Your task to perform on an android device: Add asus zenbook to the cart on costco, then select checkout. Image 0: 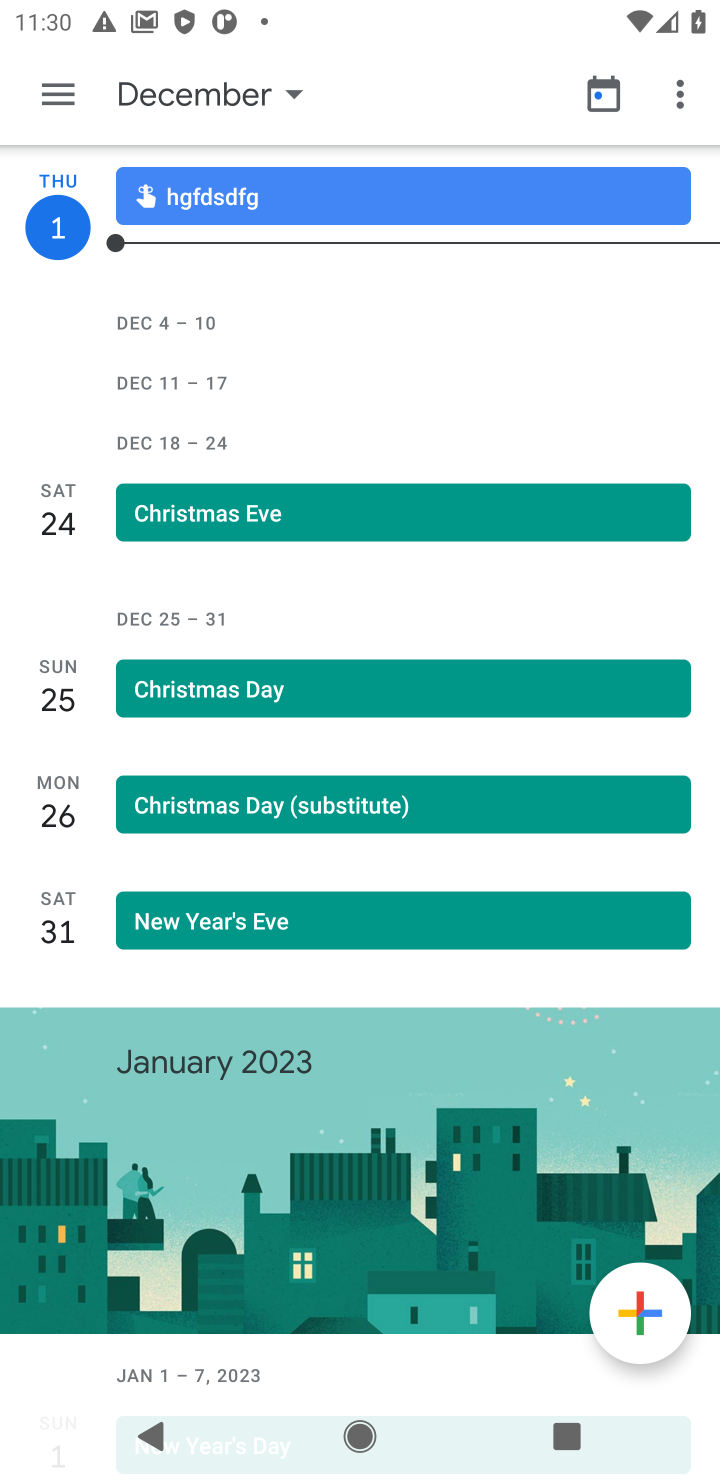
Step 0: press home button
Your task to perform on an android device: Add asus zenbook to the cart on costco, then select checkout. Image 1: 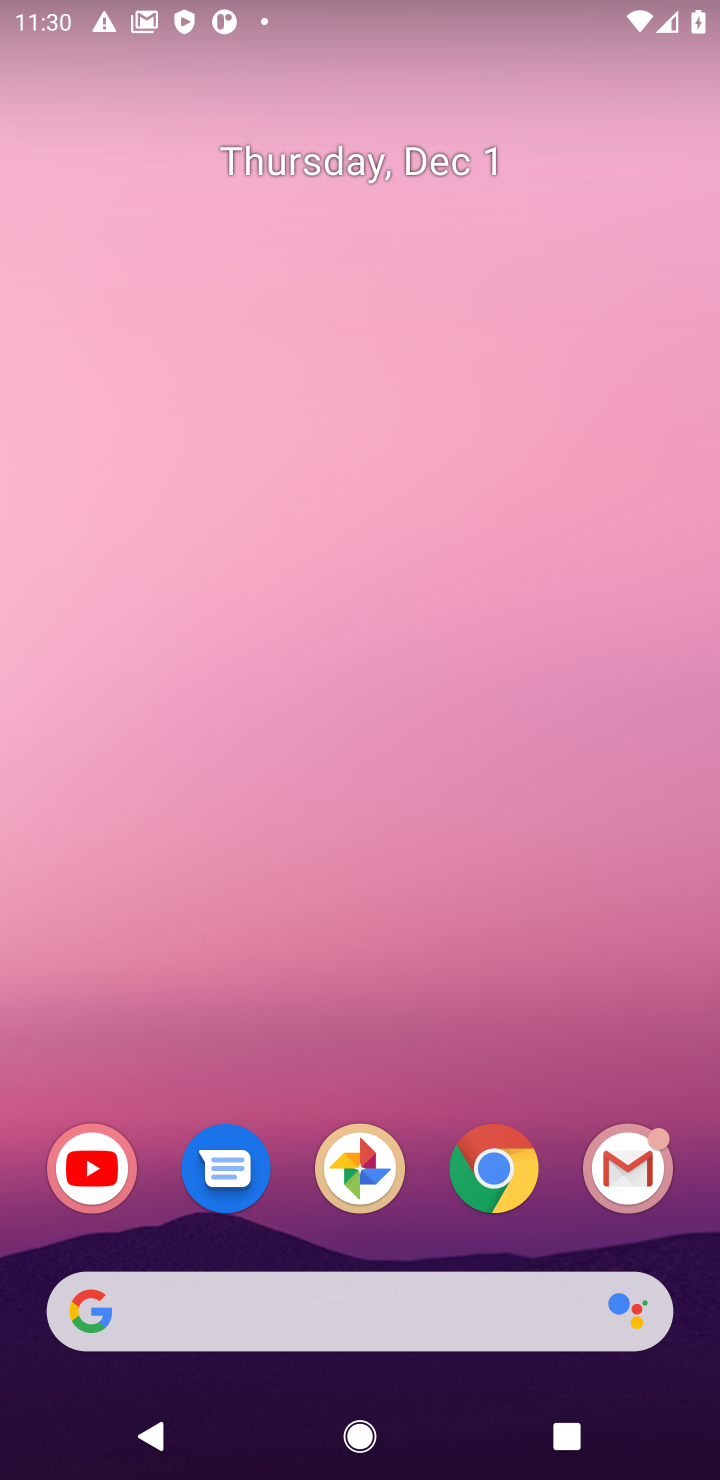
Step 1: click (491, 1190)
Your task to perform on an android device: Add asus zenbook to the cart on costco, then select checkout. Image 2: 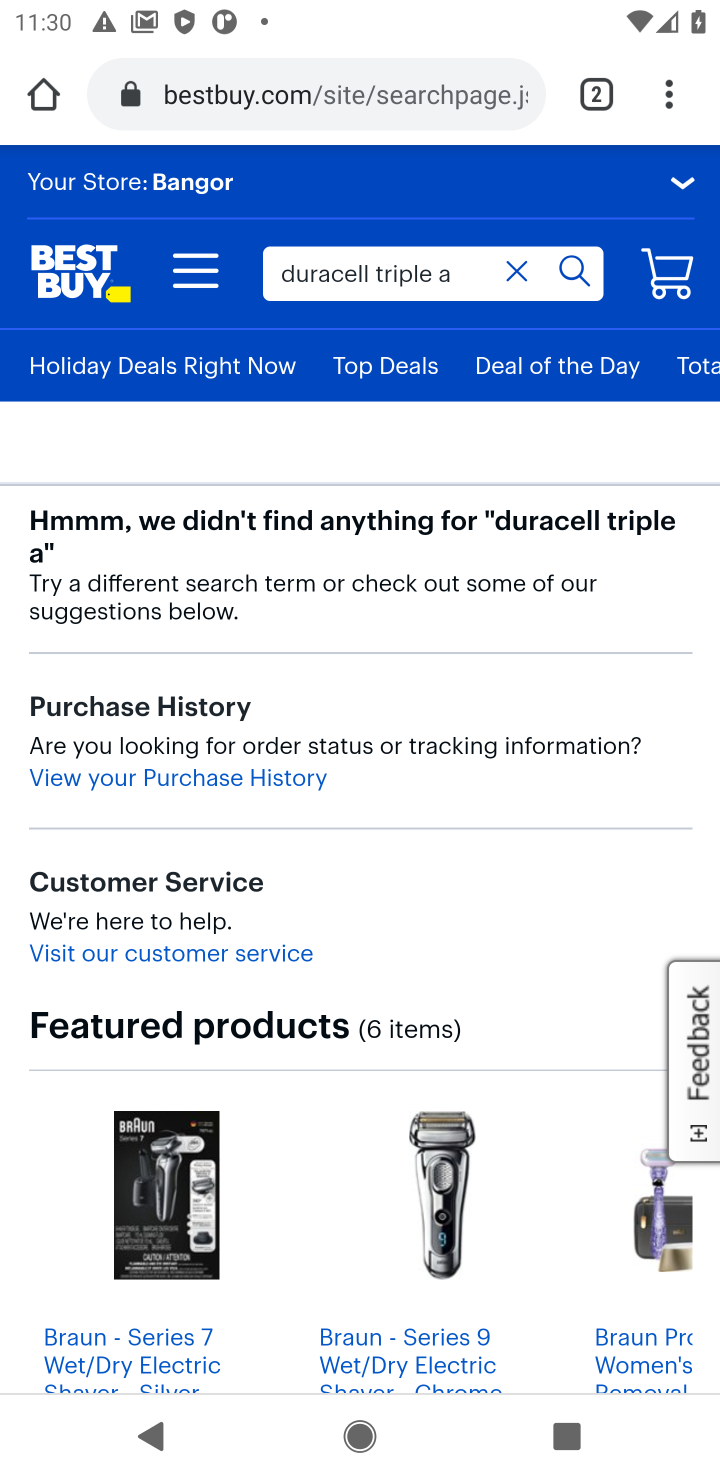
Step 2: click (325, 99)
Your task to perform on an android device: Add asus zenbook to the cart on costco, then select checkout. Image 3: 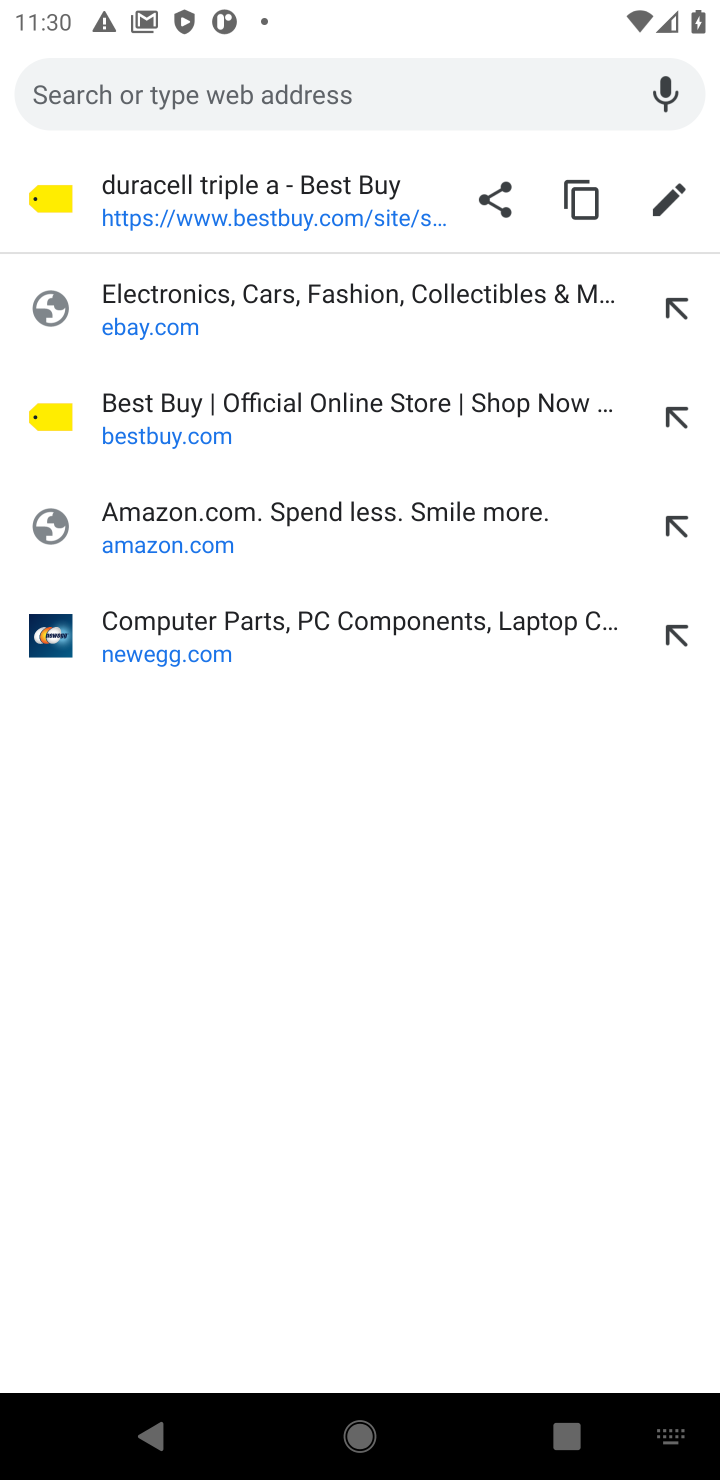
Step 3: type "costco.com"
Your task to perform on an android device: Add asus zenbook to the cart on costco, then select checkout. Image 4: 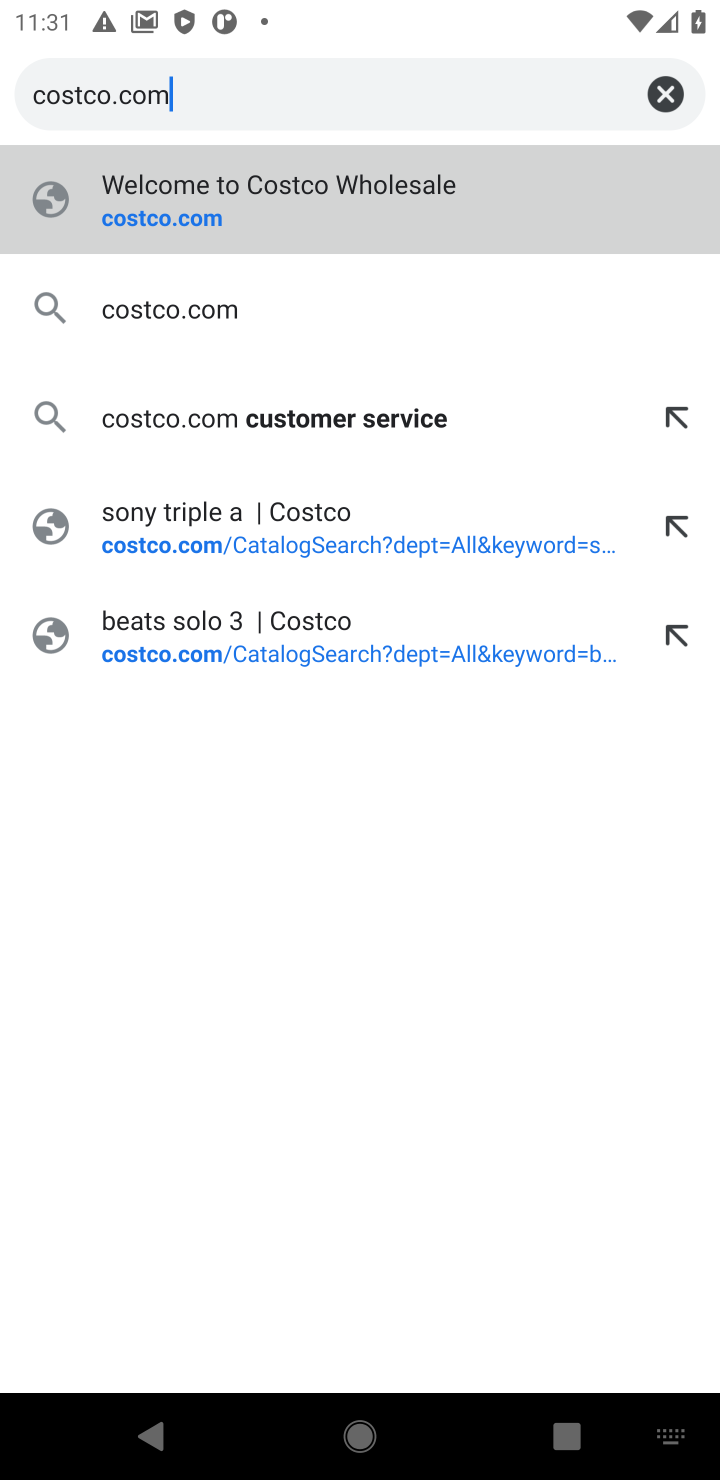
Step 4: click (148, 214)
Your task to perform on an android device: Add asus zenbook to the cart on costco, then select checkout. Image 5: 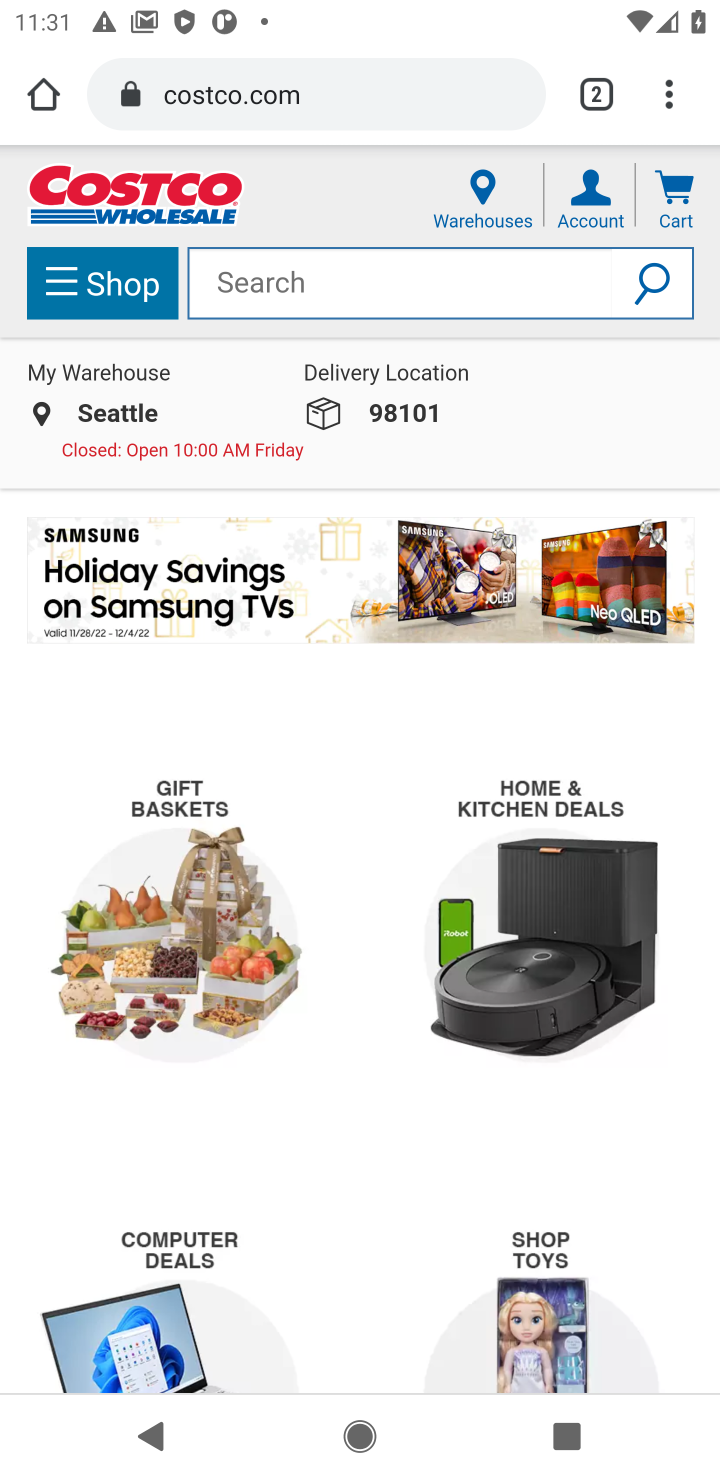
Step 5: click (276, 283)
Your task to perform on an android device: Add asus zenbook to the cart on costco, then select checkout. Image 6: 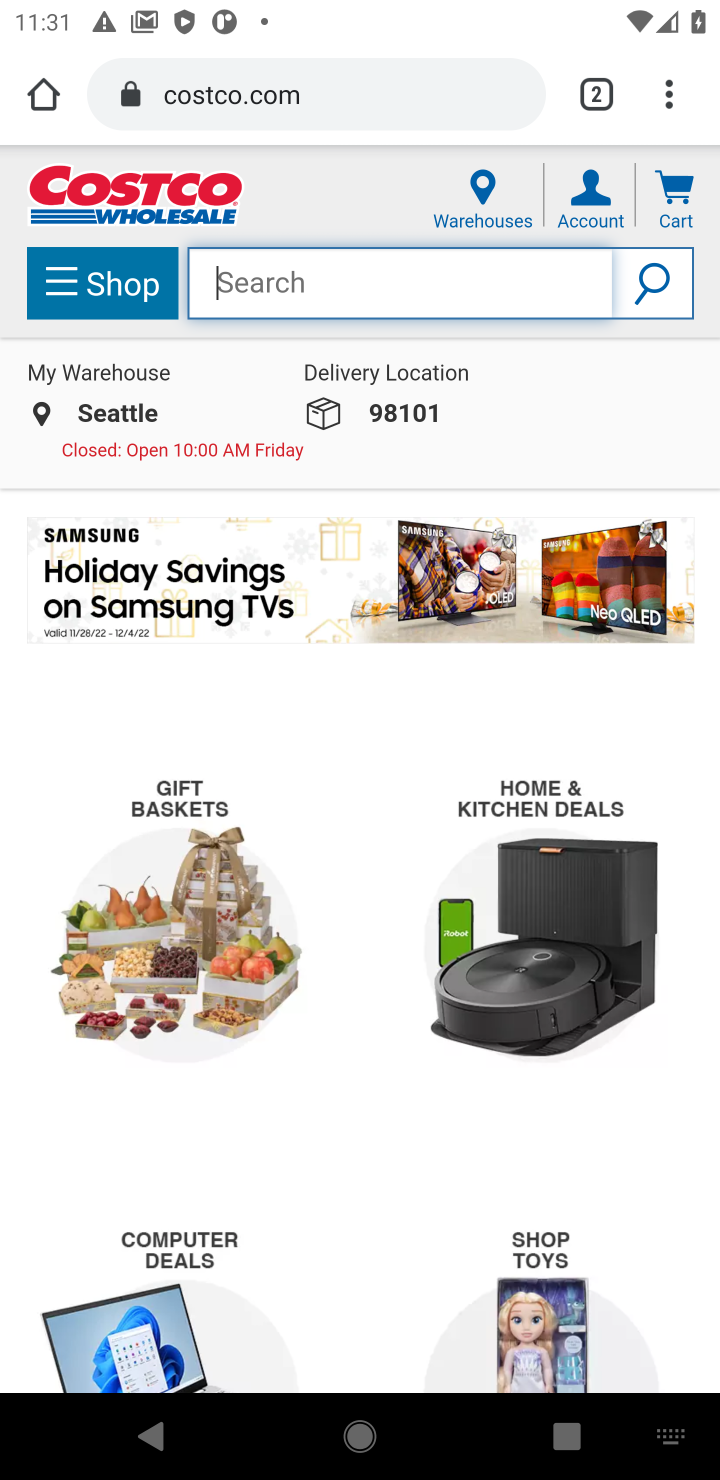
Step 6: type "asus zenbook"
Your task to perform on an android device: Add asus zenbook to the cart on costco, then select checkout. Image 7: 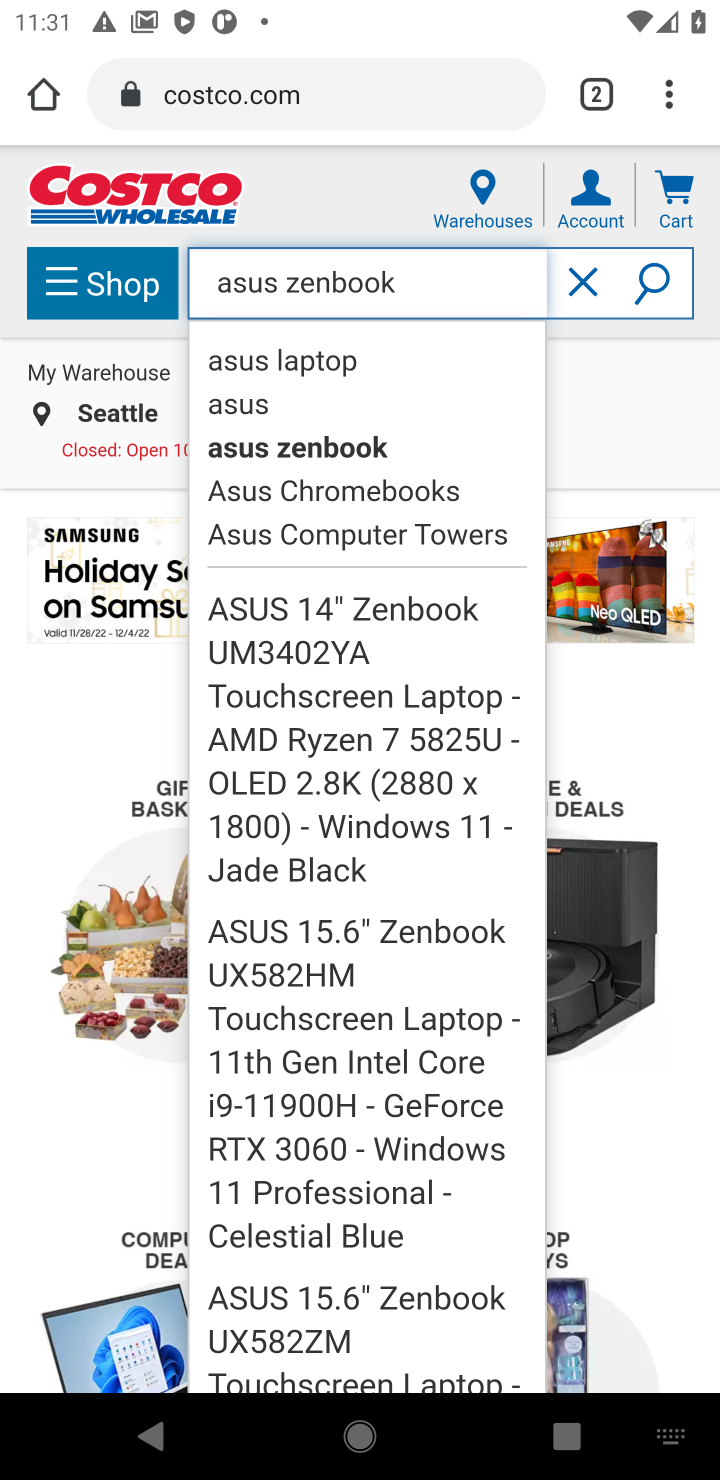
Step 7: click (669, 285)
Your task to perform on an android device: Add asus zenbook to the cart on costco, then select checkout. Image 8: 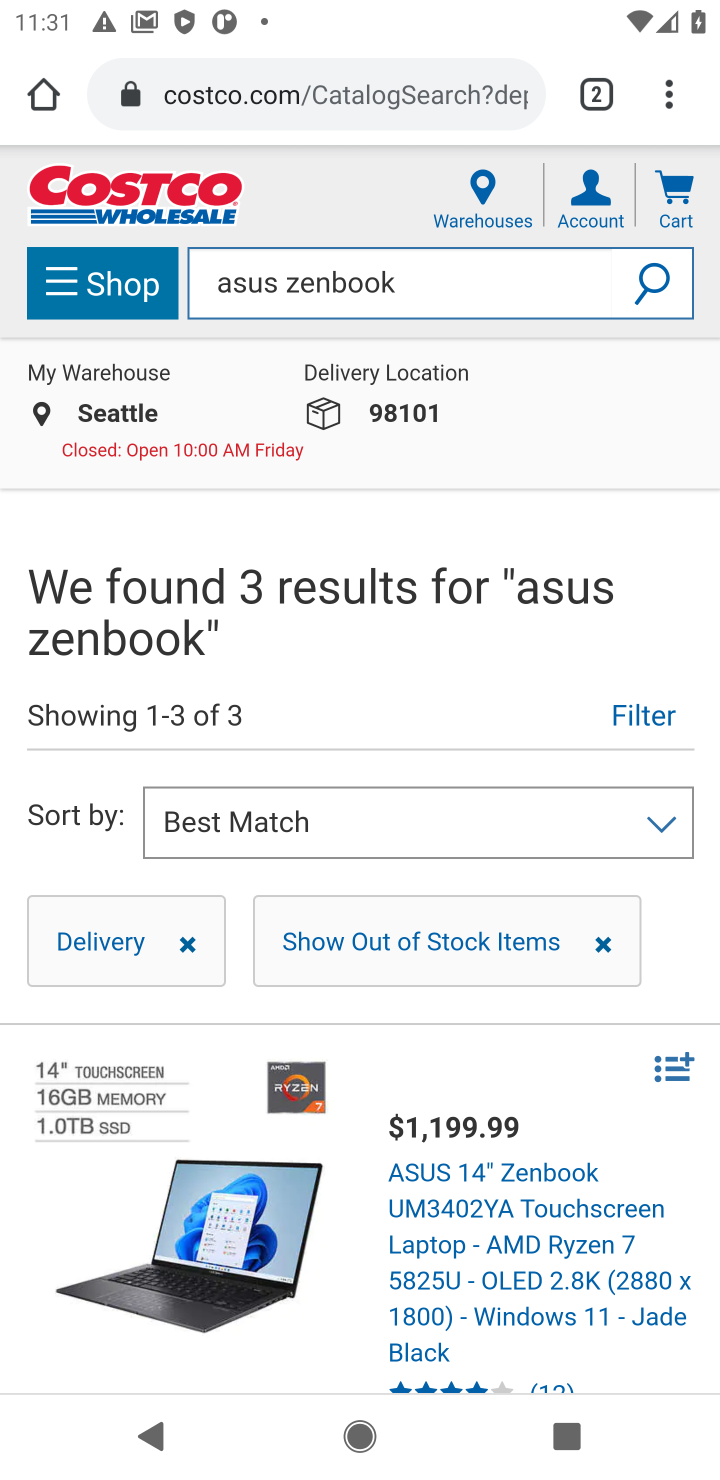
Step 8: drag from (361, 917) to (365, 581)
Your task to perform on an android device: Add asus zenbook to the cart on costco, then select checkout. Image 9: 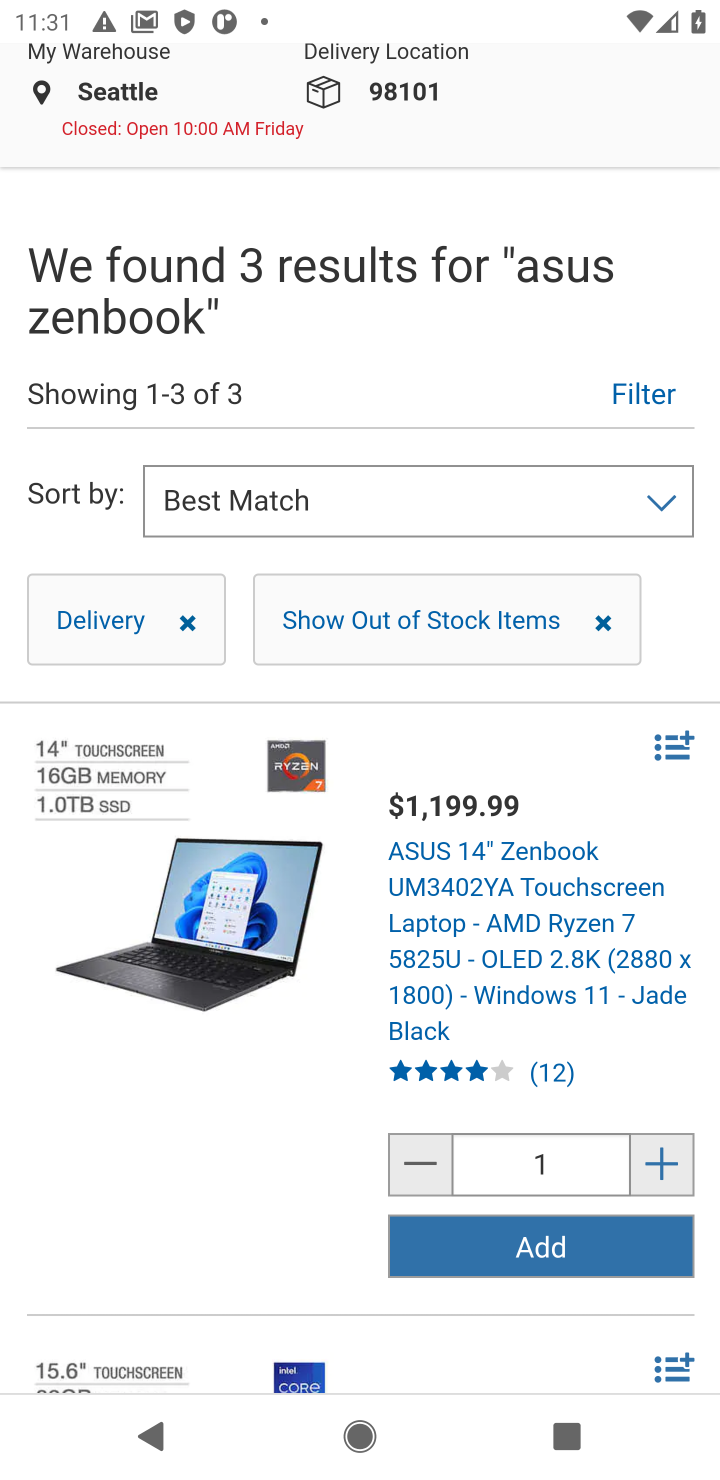
Step 9: click (524, 1249)
Your task to perform on an android device: Add asus zenbook to the cart on costco, then select checkout. Image 10: 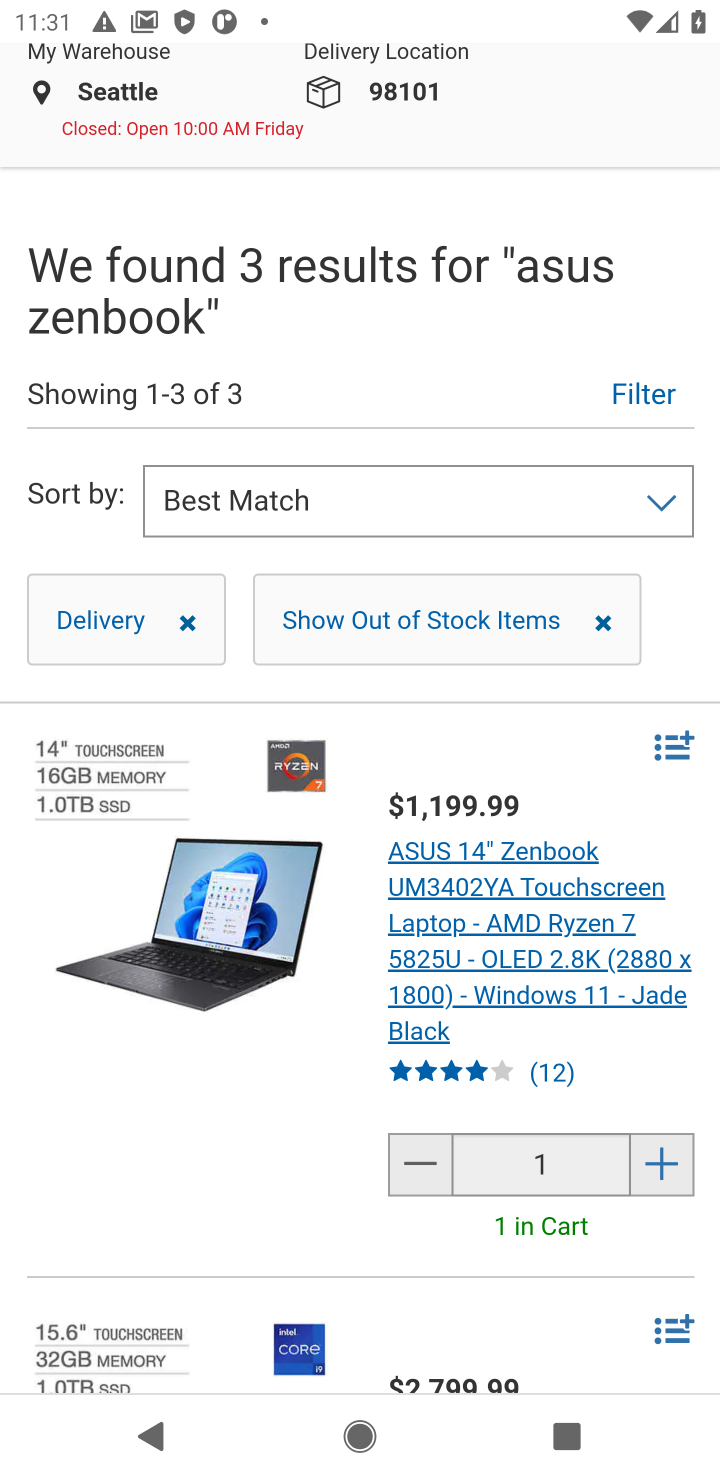
Step 10: drag from (590, 363) to (520, 1001)
Your task to perform on an android device: Add asus zenbook to the cart on costco, then select checkout. Image 11: 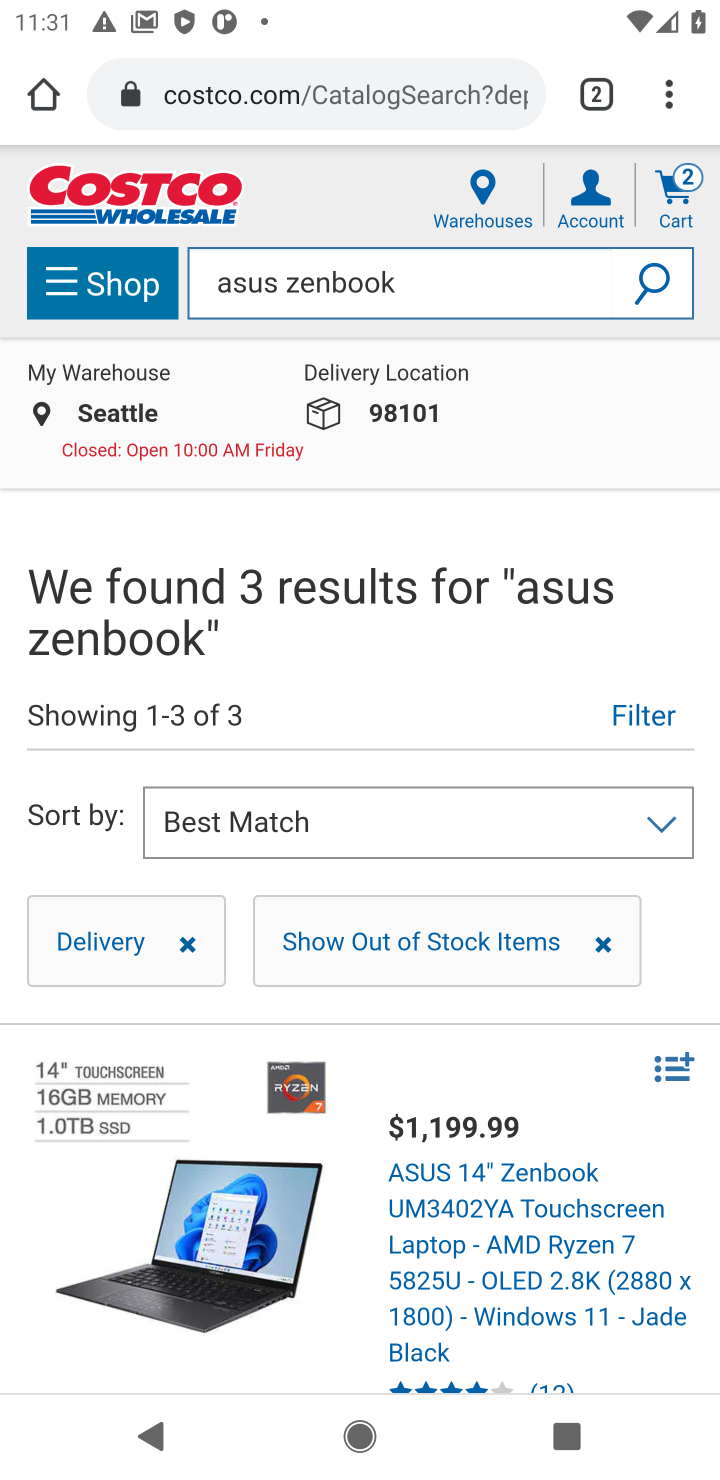
Step 11: click (679, 195)
Your task to perform on an android device: Add asus zenbook to the cart on costco, then select checkout. Image 12: 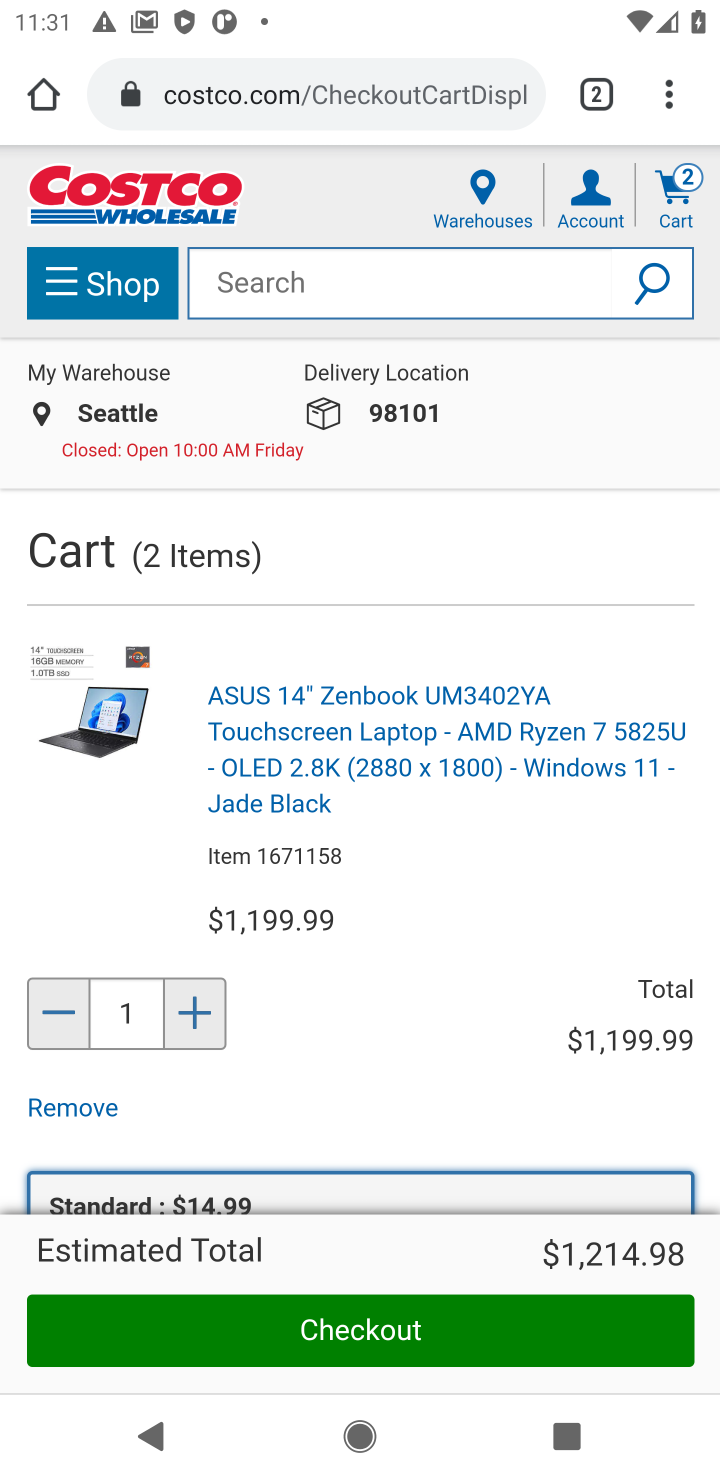
Step 12: click (348, 1334)
Your task to perform on an android device: Add asus zenbook to the cart on costco, then select checkout. Image 13: 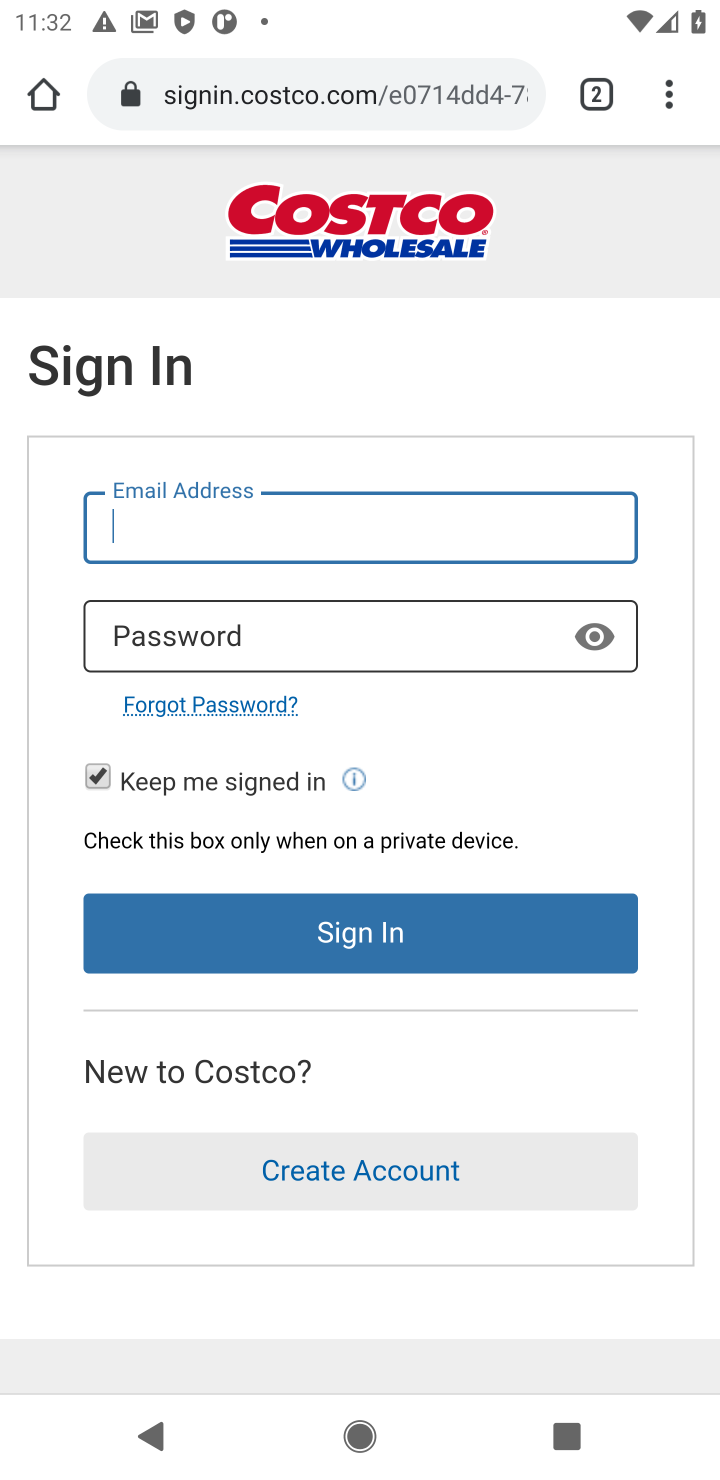
Step 13: task complete